Your task to perform on an android device: open app "Pluto TV - Live TV and Movies" (install if not already installed), go to login, and select forgot password Image 0: 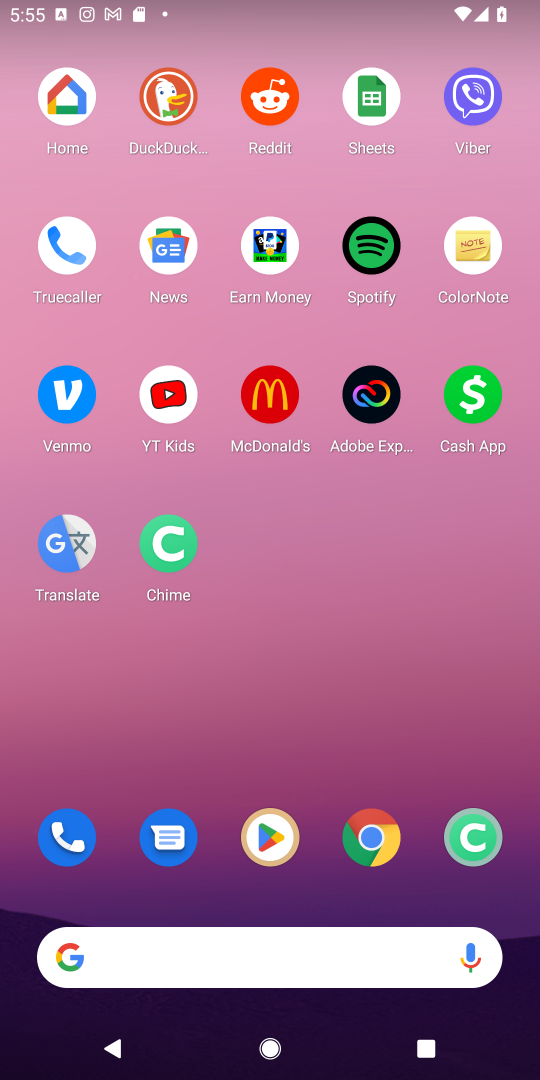
Step 0: press home button
Your task to perform on an android device: open app "Pluto TV - Live TV and Movies" (install if not already installed), go to login, and select forgot password Image 1: 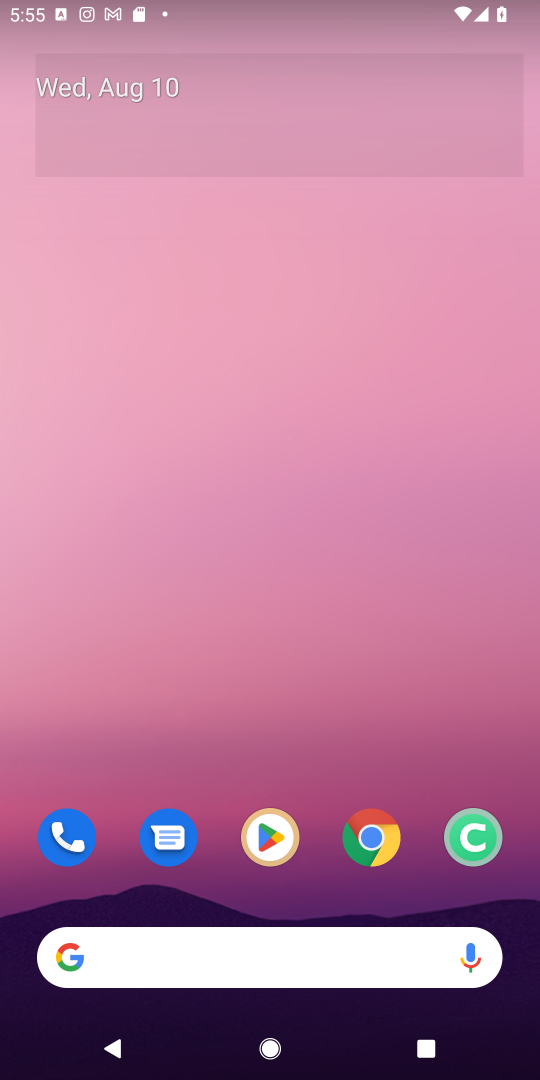
Step 1: click (266, 836)
Your task to perform on an android device: open app "Pluto TV - Live TV and Movies" (install if not already installed), go to login, and select forgot password Image 2: 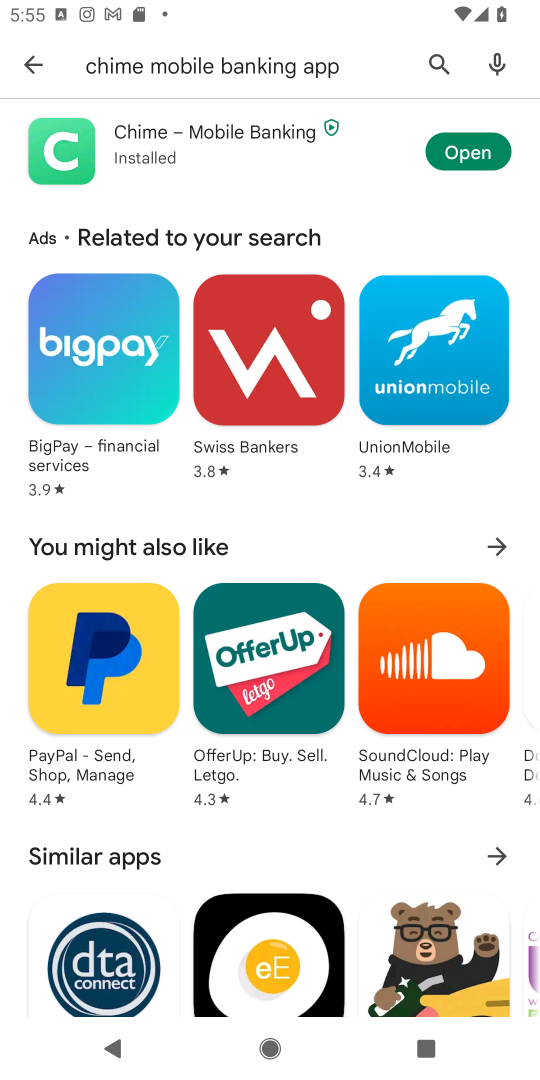
Step 2: click (443, 65)
Your task to perform on an android device: open app "Pluto TV - Live TV and Movies" (install if not already installed), go to login, and select forgot password Image 3: 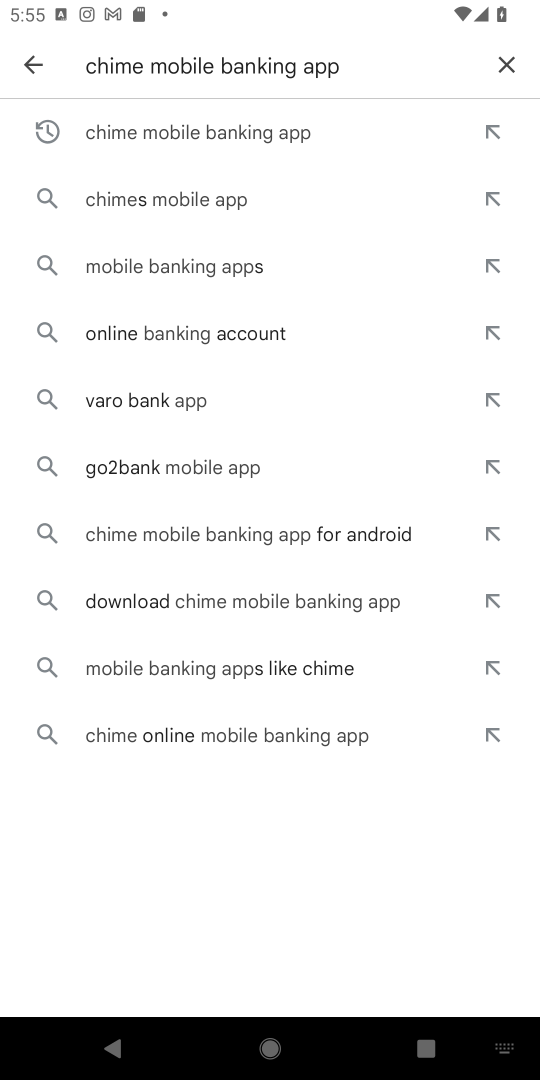
Step 3: click (497, 66)
Your task to perform on an android device: open app "Pluto TV - Live TV and Movies" (install if not already installed), go to login, and select forgot password Image 4: 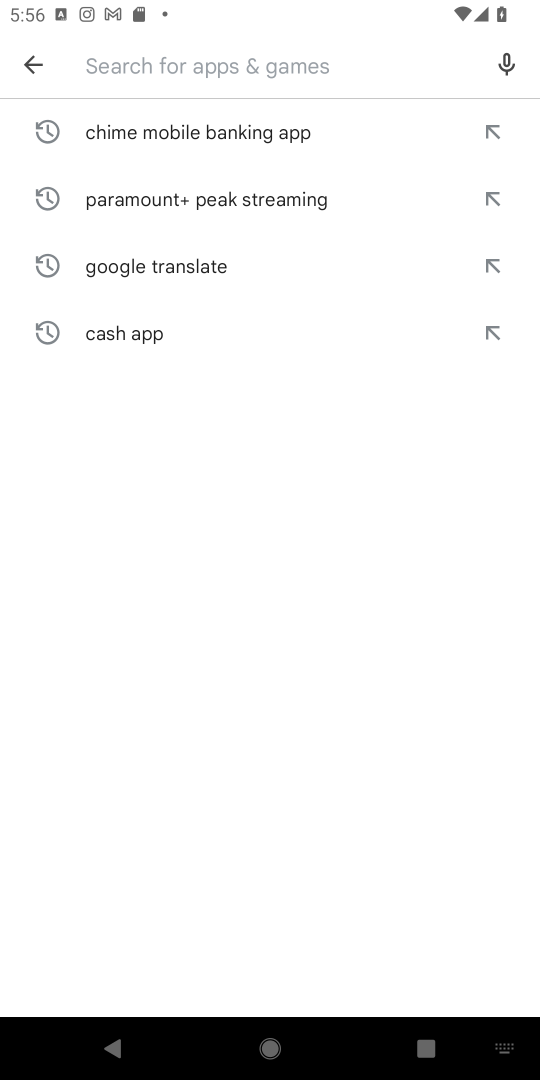
Step 4: type "Pluto TV - Live TV and Movies"
Your task to perform on an android device: open app "Pluto TV - Live TV and Movies" (install if not already installed), go to login, and select forgot password Image 5: 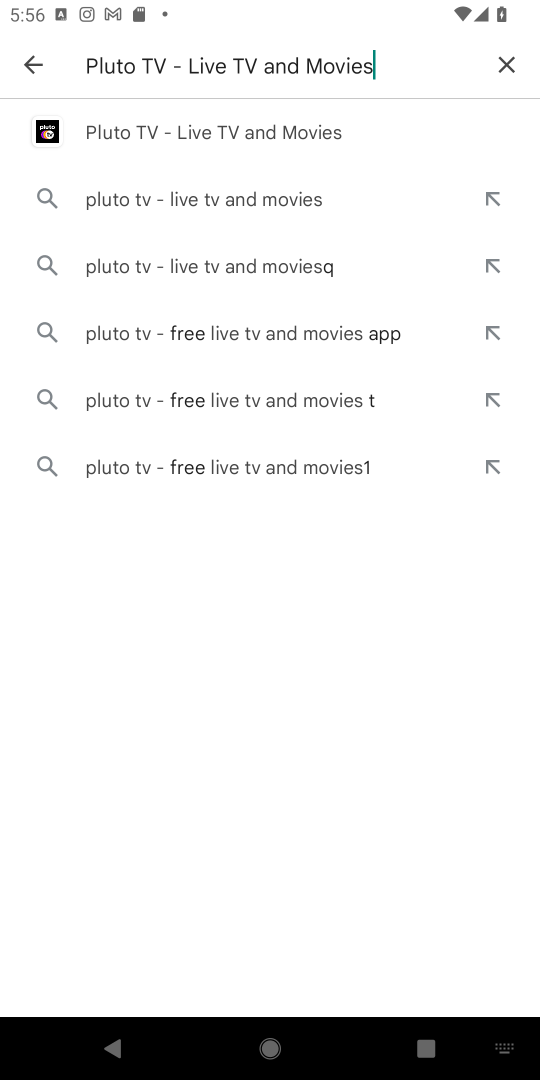
Step 5: click (260, 137)
Your task to perform on an android device: open app "Pluto TV - Live TV and Movies" (install if not already installed), go to login, and select forgot password Image 6: 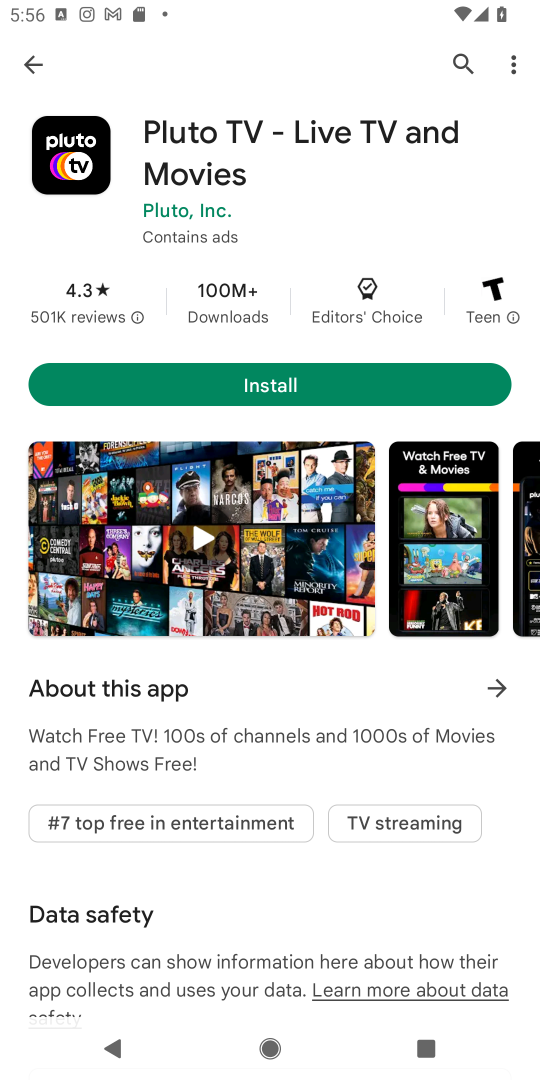
Step 6: click (306, 387)
Your task to perform on an android device: open app "Pluto TV - Live TV and Movies" (install if not already installed), go to login, and select forgot password Image 7: 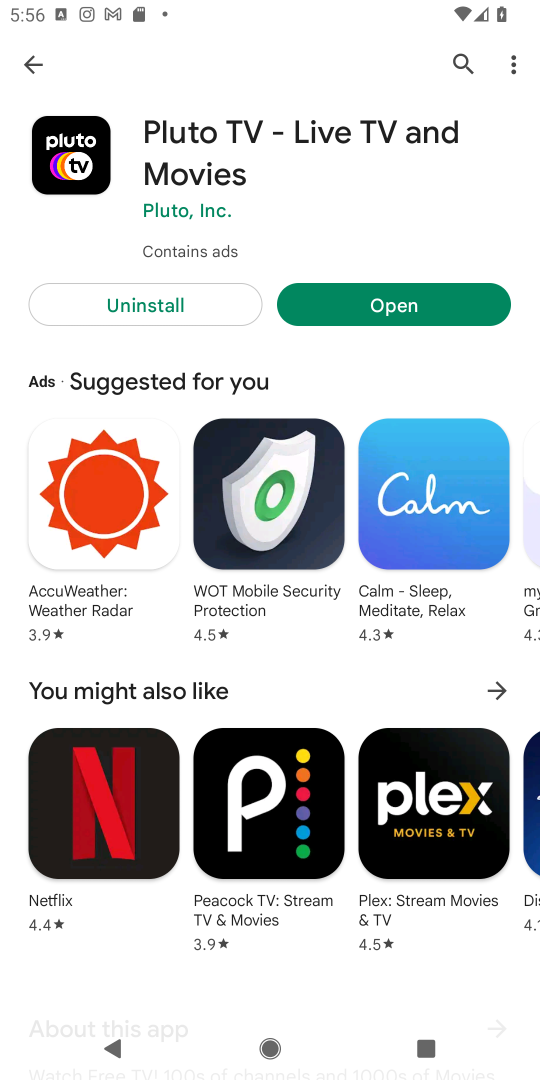
Step 7: click (384, 300)
Your task to perform on an android device: open app "Pluto TV - Live TV and Movies" (install if not already installed), go to login, and select forgot password Image 8: 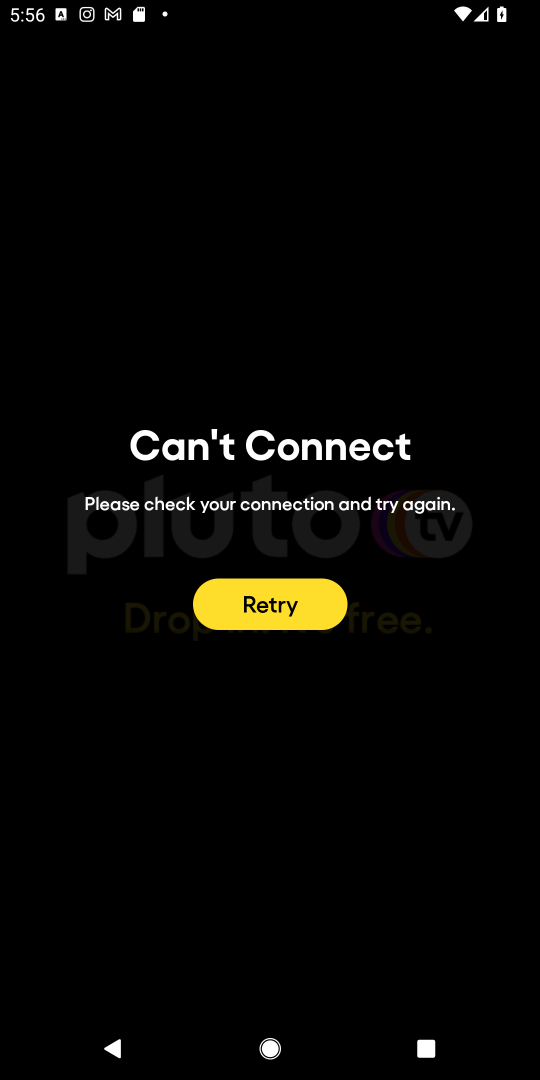
Step 8: task complete